Your task to perform on an android device: Search for razer huntsman on bestbuy, select the first entry, and add it to the cart. Image 0: 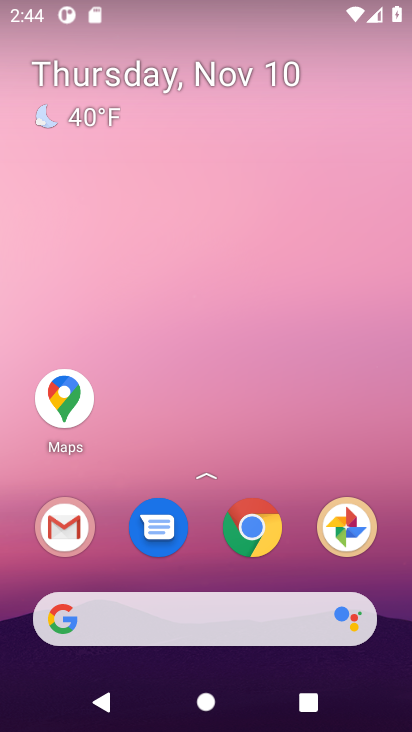
Step 0: click (181, 248)
Your task to perform on an android device: Search for razer huntsman on bestbuy, select the first entry, and add it to the cart. Image 1: 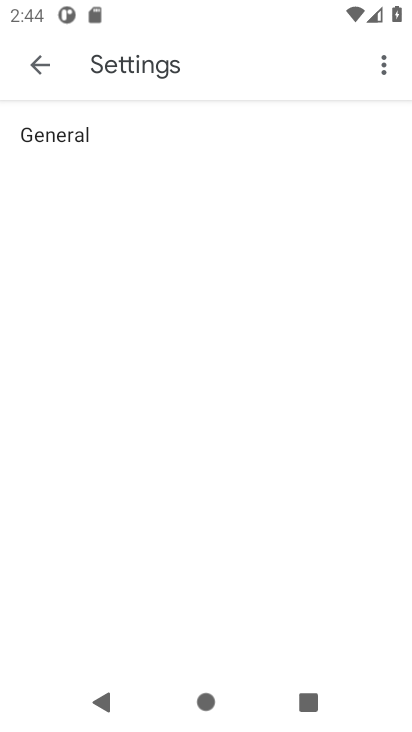
Step 1: press home button
Your task to perform on an android device: Search for razer huntsman on bestbuy, select the first entry, and add it to the cart. Image 2: 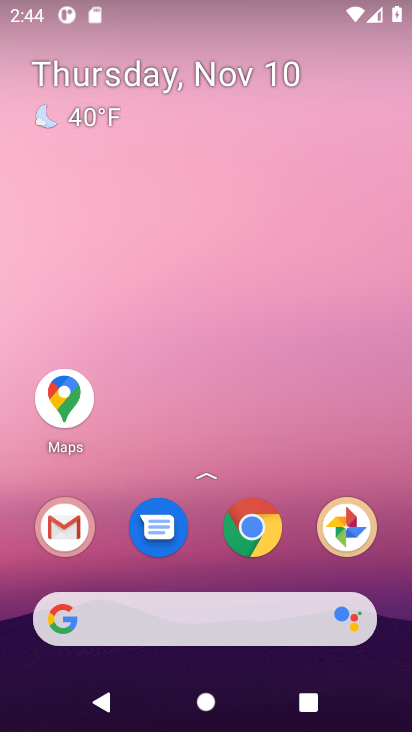
Step 2: drag from (136, 156) to (135, 35)
Your task to perform on an android device: Search for razer huntsman on bestbuy, select the first entry, and add it to the cart. Image 3: 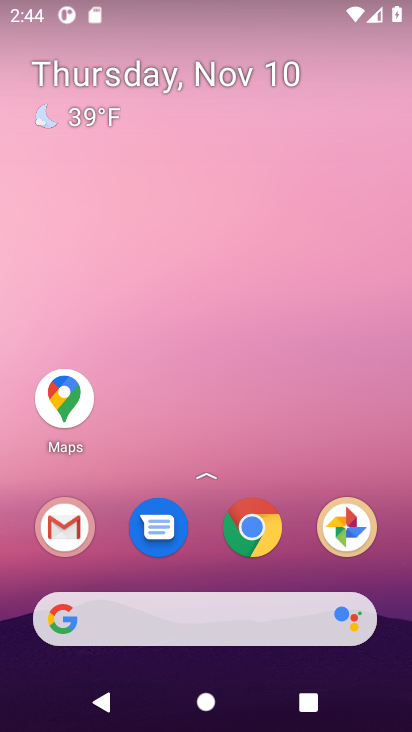
Step 3: drag from (229, 566) to (130, 193)
Your task to perform on an android device: Search for razer huntsman on bestbuy, select the first entry, and add it to the cart. Image 4: 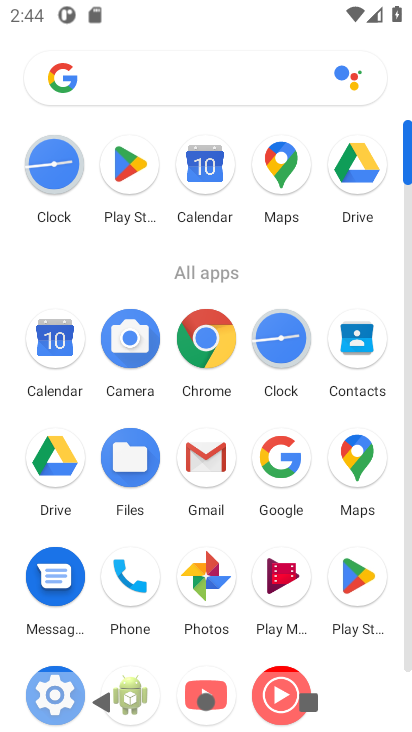
Step 4: click (200, 335)
Your task to perform on an android device: Search for razer huntsman on bestbuy, select the first entry, and add it to the cart. Image 5: 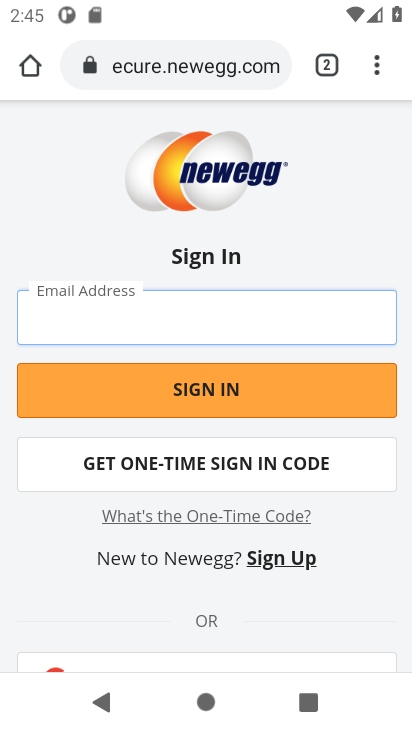
Step 5: click (121, 78)
Your task to perform on an android device: Search for razer huntsman on bestbuy, select the first entry, and add it to the cart. Image 6: 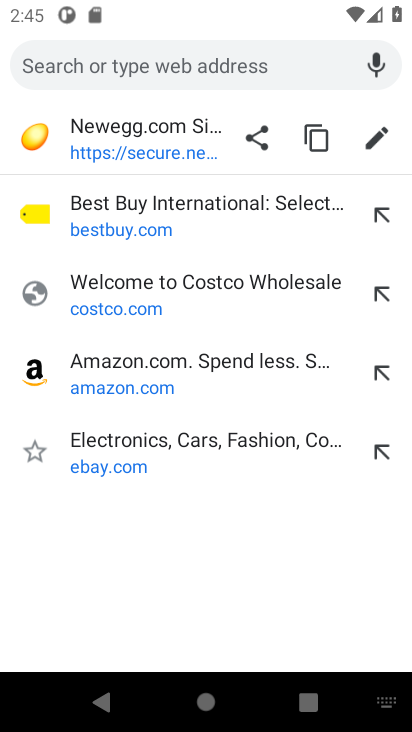
Step 6: type "bestbuy"
Your task to perform on an android device: Search for razer huntsman on bestbuy, select the first entry, and add it to the cart. Image 7: 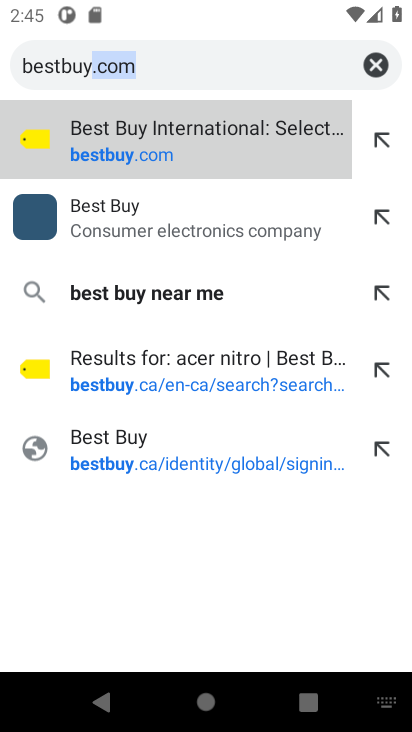
Step 7: press enter
Your task to perform on an android device: Search for razer huntsman on bestbuy, select the first entry, and add it to the cart. Image 8: 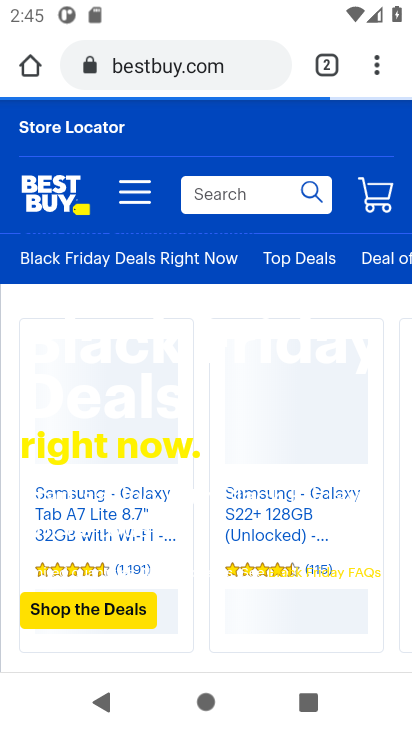
Step 8: click (235, 193)
Your task to perform on an android device: Search for razer huntsman on bestbuy, select the first entry, and add it to the cart. Image 9: 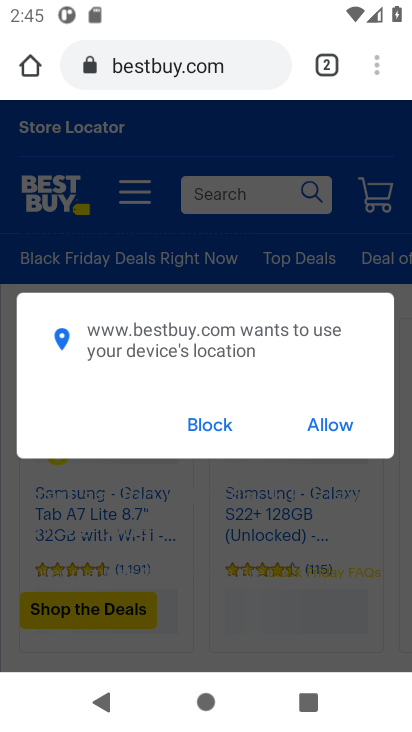
Step 9: click (314, 433)
Your task to perform on an android device: Search for razer huntsman on bestbuy, select the first entry, and add it to the cart. Image 10: 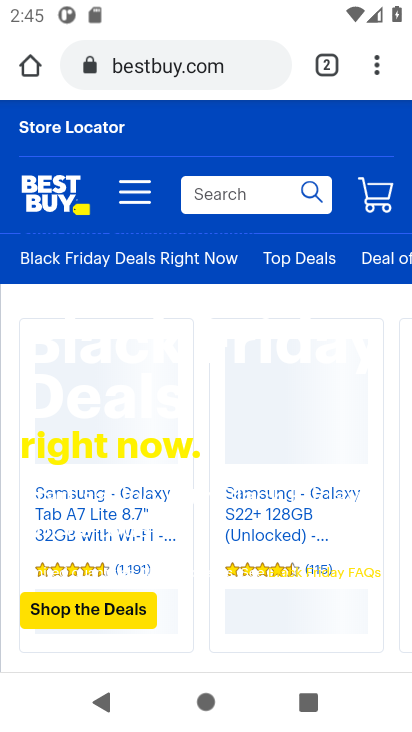
Step 10: click (223, 200)
Your task to perform on an android device: Search for razer huntsman on bestbuy, select the first entry, and add it to the cart. Image 11: 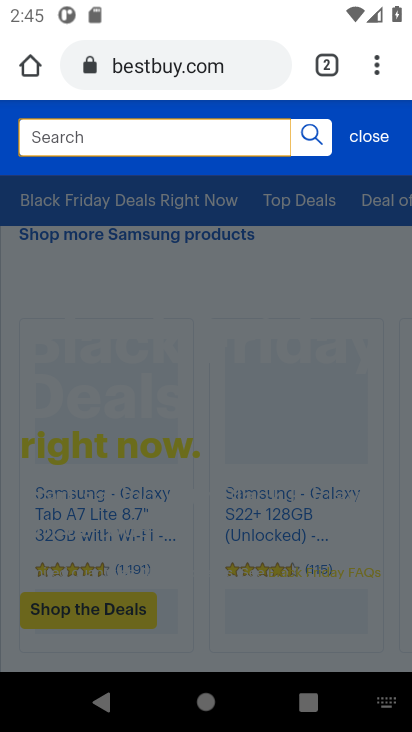
Step 11: type "razer huntsman"
Your task to perform on an android device: Search for razer huntsman on bestbuy, select the first entry, and add it to the cart. Image 12: 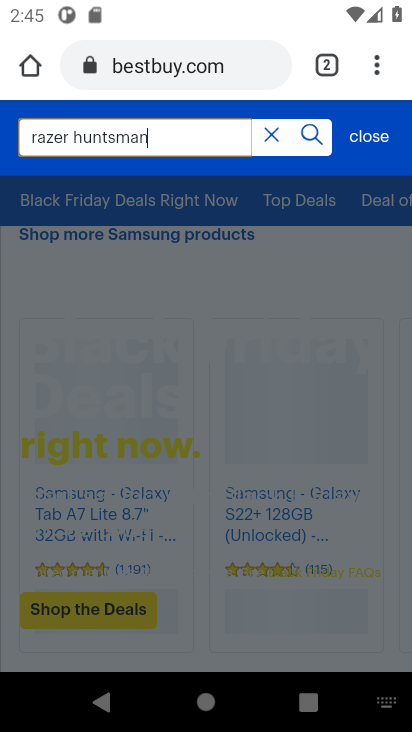
Step 12: press enter
Your task to perform on an android device: Search for razer huntsman on bestbuy, select the first entry, and add it to the cart. Image 13: 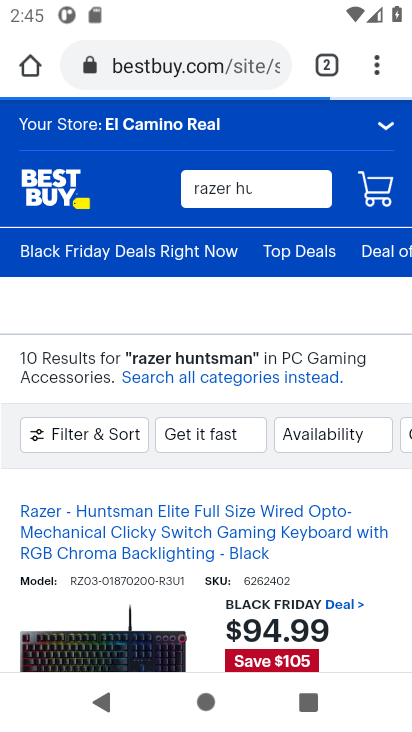
Step 13: drag from (280, 575) to (229, 238)
Your task to perform on an android device: Search for razer huntsman on bestbuy, select the first entry, and add it to the cart. Image 14: 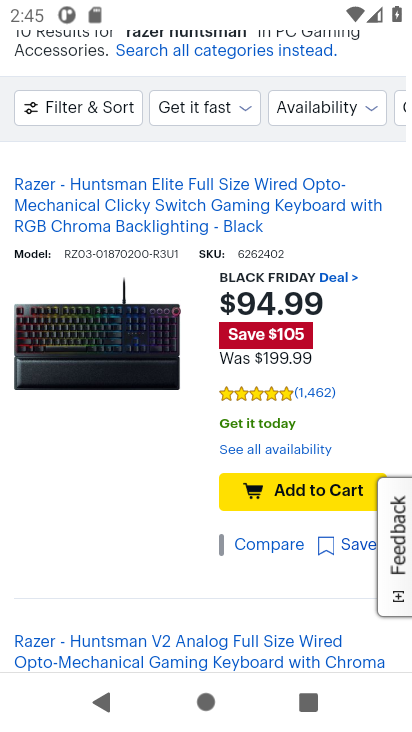
Step 14: click (313, 490)
Your task to perform on an android device: Search for razer huntsman on bestbuy, select the first entry, and add it to the cart. Image 15: 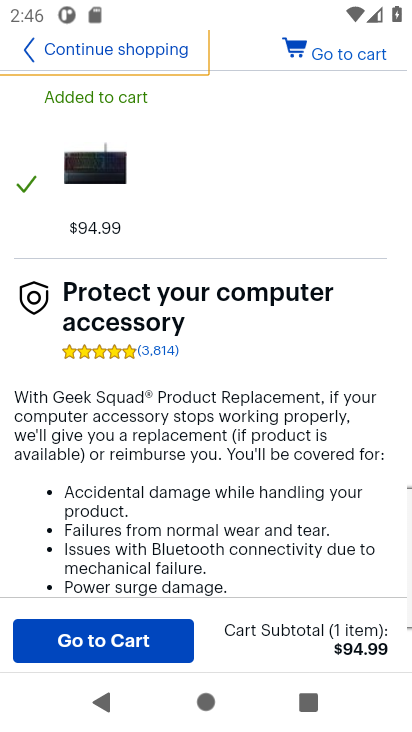
Step 15: click (139, 649)
Your task to perform on an android device: Search for razer huntsman on bestbuy, select the first entry, and add it to the cart. Image 16: 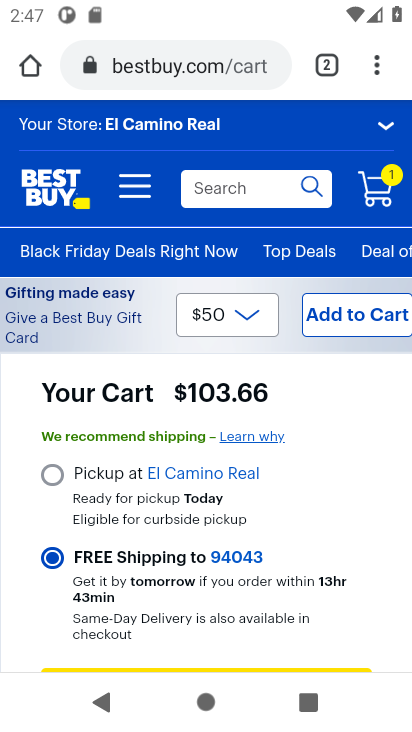
Step 16: task complete